Your task to perform on an android device: Open Google Chrome and open the bookmarks view Image 0: 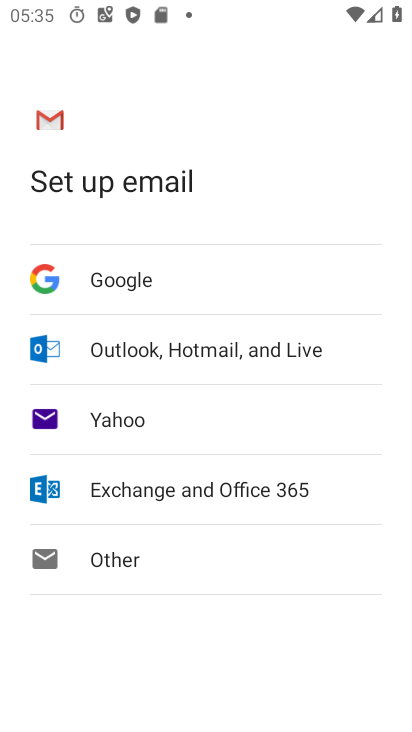
Step 0: press home button
Your task to perform on an android device: Open Google Chrome and open the bookmarks view Image 1: 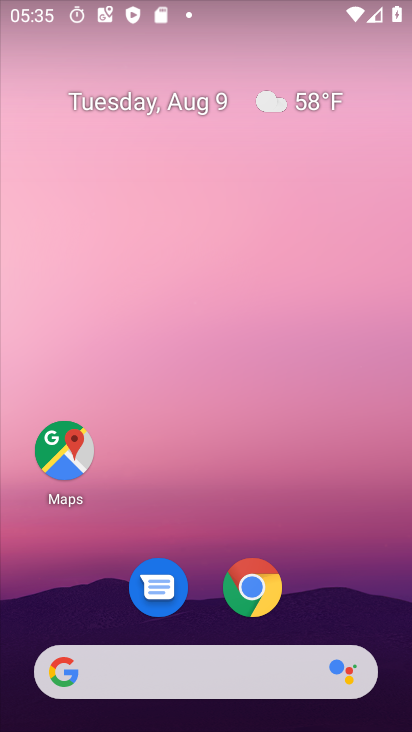
Step 1: click (262, 599)
Your task to perform on an android device: Open Google Chrome and open the bookmarks view Image 2: 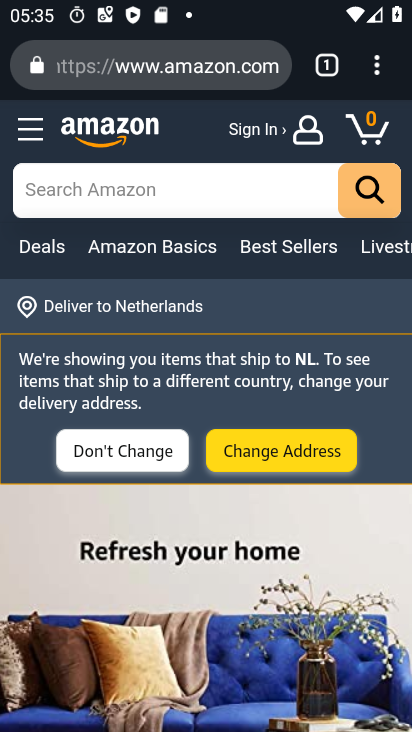
Step 2: drag from (382, 69) to (201, 251)
Your task to perform on an android device: Open Google Chrome and open the bookmarks view Image 3: 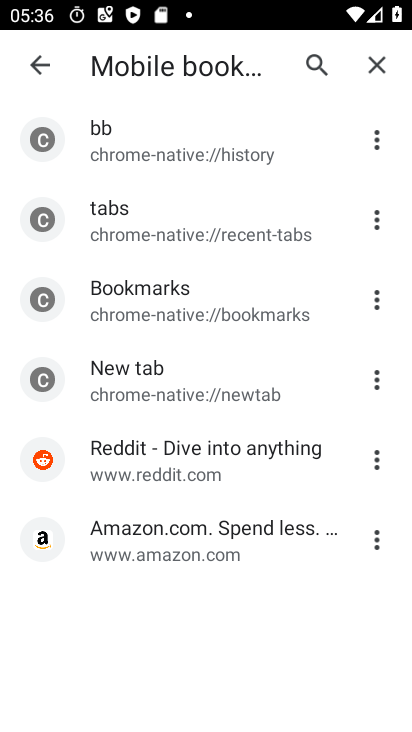
Step 3: click (159, 465)
Your task to perform on an android device: Open Google Chrome and open the bookmarks view Image 4: 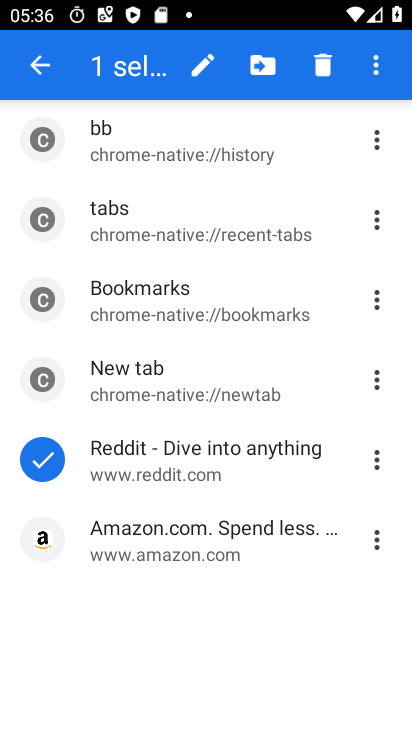
Step 4: click (159, 465)
Your task to perform on an android device: Open Google Chrome and open the bookmarks view Image 5: 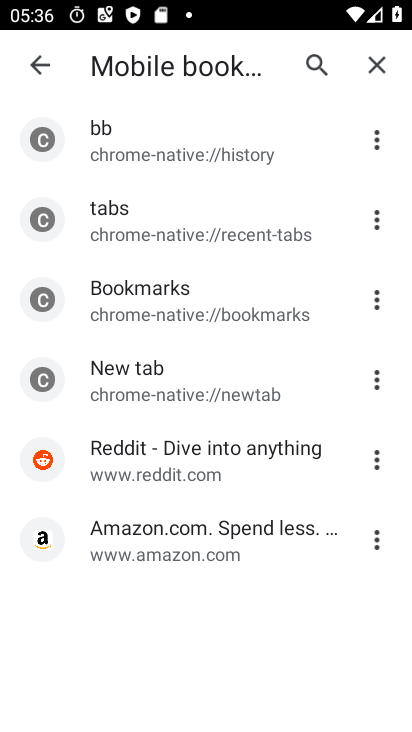
Step 5: click (159, 465)
Your task to perform on an android device: Open Google Chrome and open the bookmarks view Image 6: 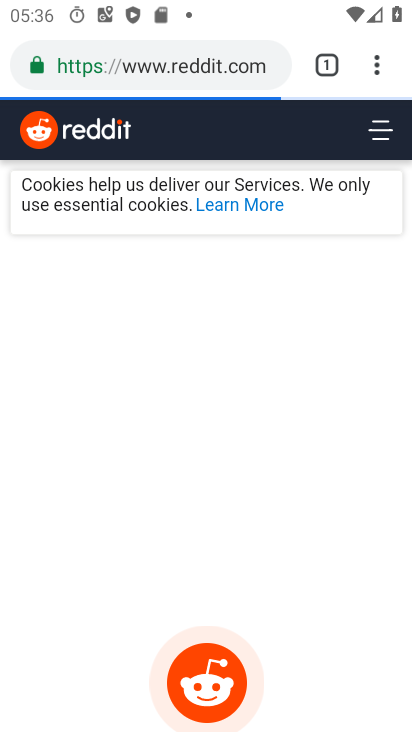
Step 6: task complete